Your task to perform on an android device: Check the news Image 0: 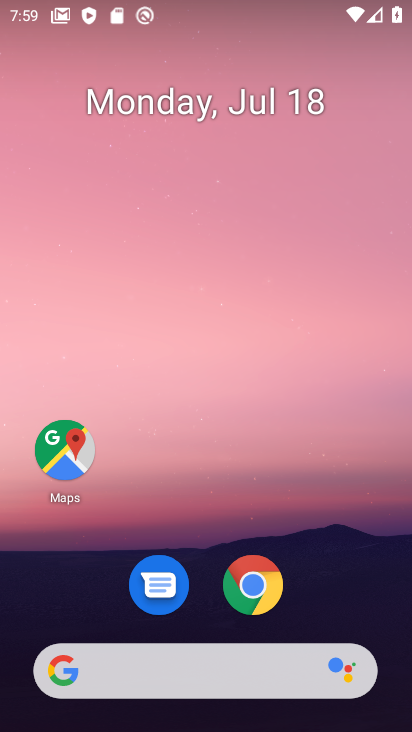
Step 0: click (178, 661)
Your task to perform on an android device: Check the news Image 1: 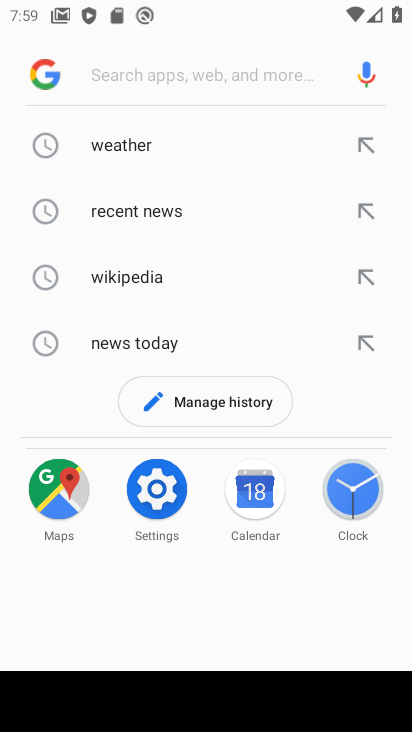
Step 1: click (145, 209)
Your task to perform on an android device: Check the news Image 2: 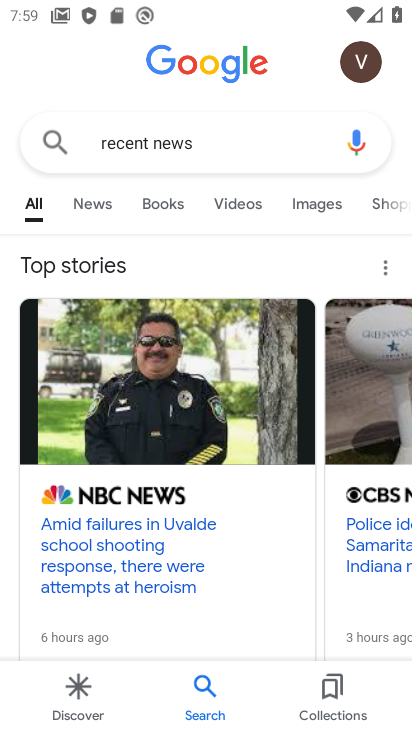
Step 2: click (103, 207)
Your task to perform on an android device: Check the news Image 3: 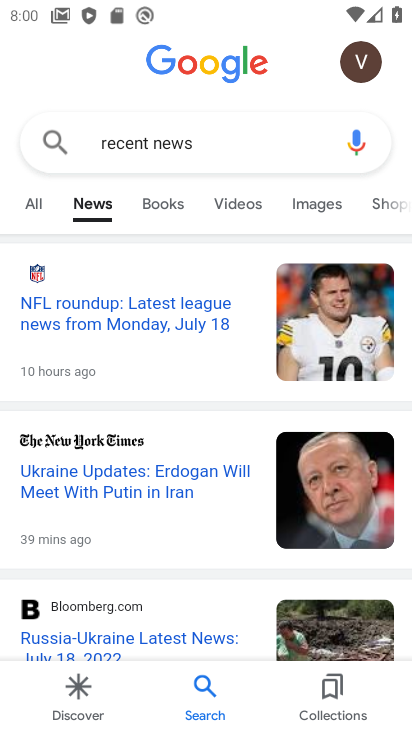
Step 3: task complete